Your task to perform on an android device: allow cookies in the chrome app Image 0: 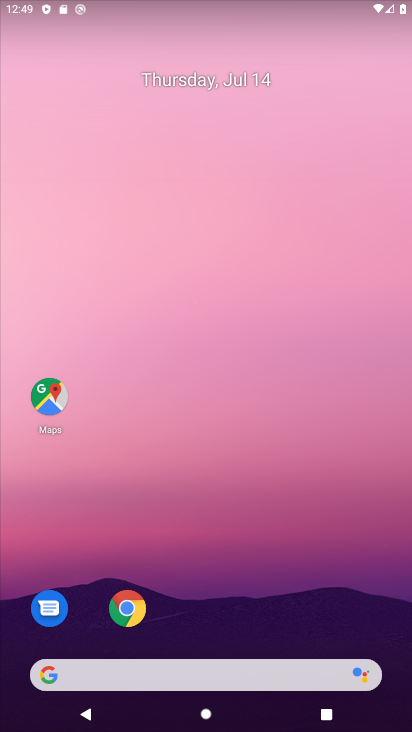
Step 0: drag from (237, 639) to (214, 119)
Your task to perform on an android device: allow cookies in the chrome app Image 1: 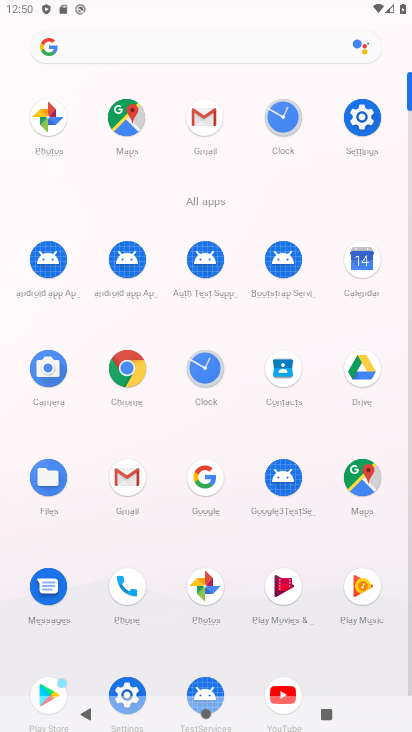
Step 1: click (108, 357)
Your task to perform on an android device: allow cookies in the chrome app Image 2: 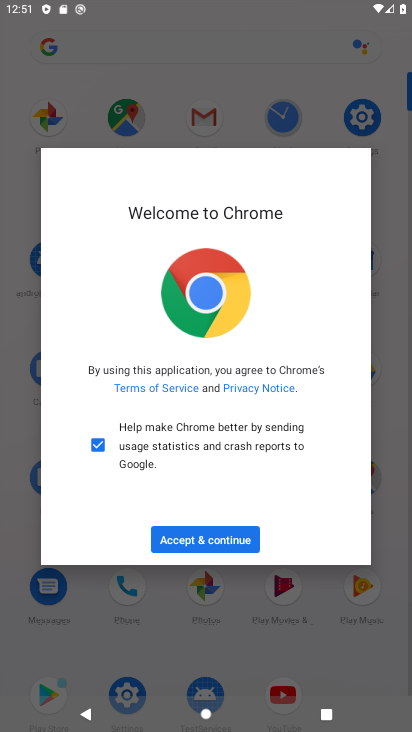
Step 2: click (176, 547)
Your task to perform on an android device: allow cookies in the chrome app Image 3: 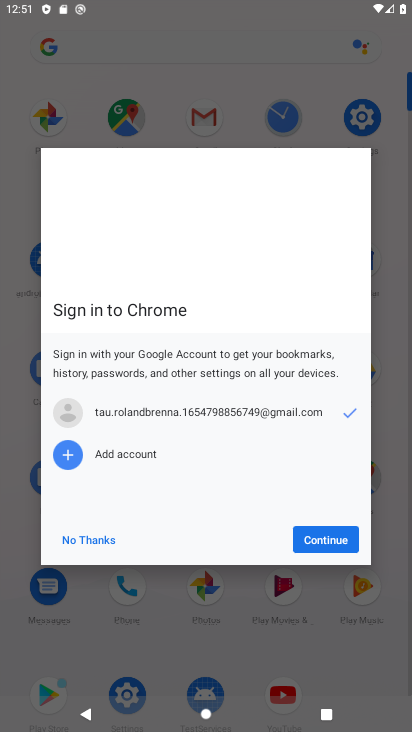
Step 3: click (346, 546)
Your task to perform on an android device: allow cookies in the chrome app Image 4: 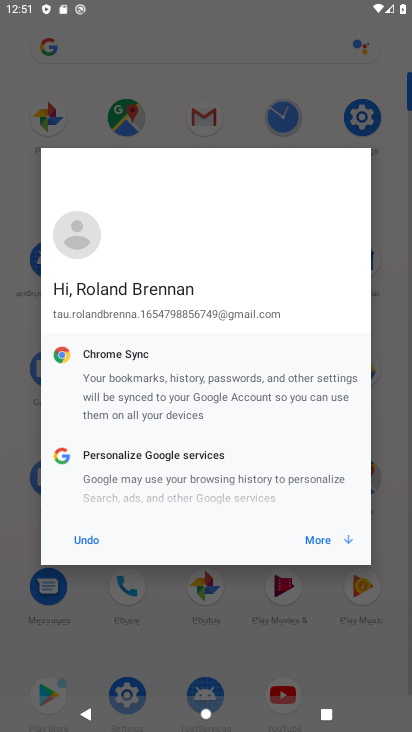
Step 4: click (346, 546)
Your task to perform on an android device: allow cookies in the chrome app Image 5: 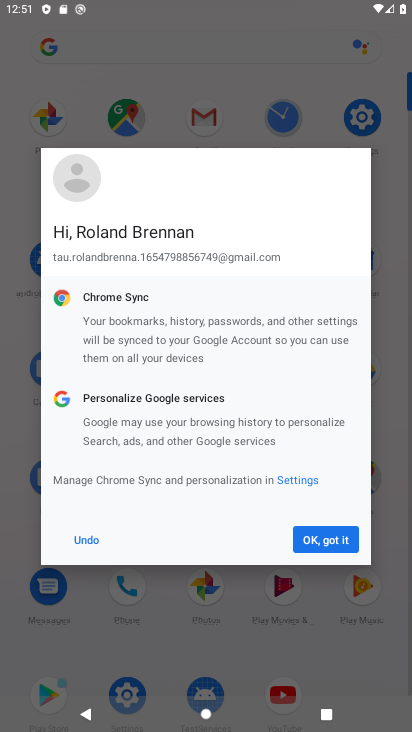
Step 5: click (346, 545)
Your task to perform on an android device: allow cookies in the chrome app Image 6: 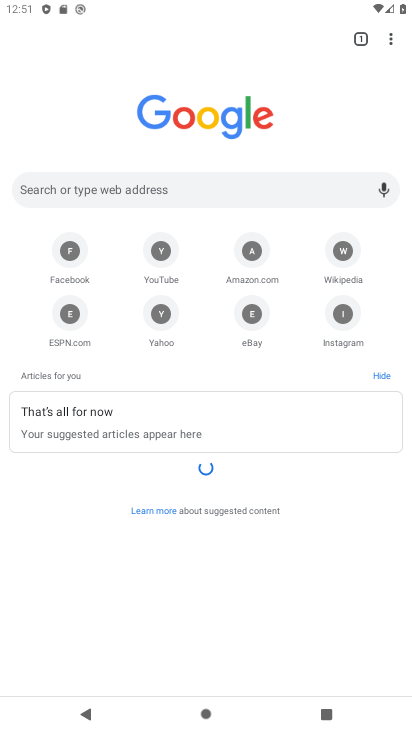
Step 6: drag from (391, 44) to (247, 321)
Your task to perform on an android device: allow cookies in the chrome app Image 7: 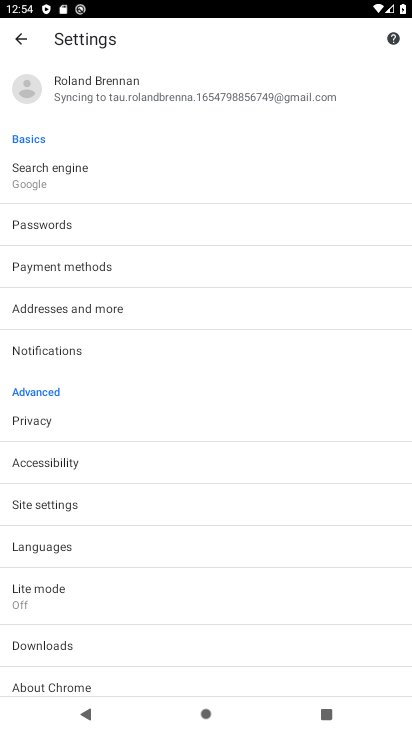
Step 7: click (81, 501)
Your task to perform on an android device: allow cookies in the chrome app Image 8: 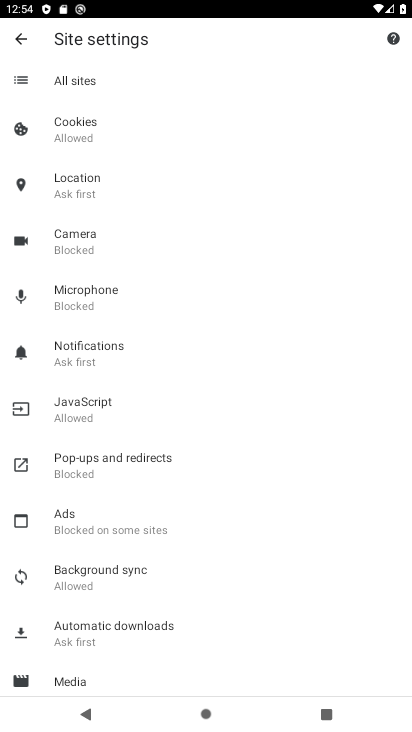
Step 8: click (34, 134)
Your task to perform on an android device: allow cookies in the chrome app Image 9: 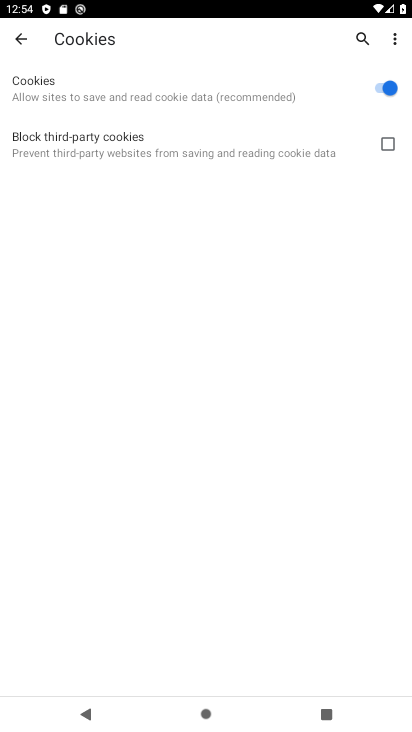
Step 9: task complete